Your task to perform on an android device: install app "Mercado Libre" Image 0: 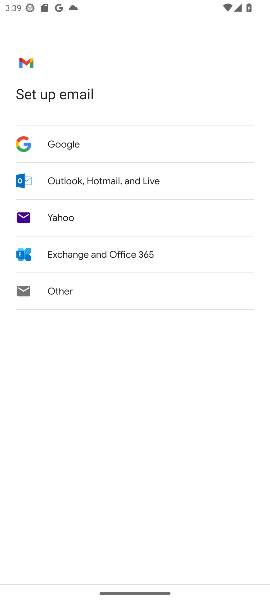
Step 0: press home button
Your task to perform on an android device: install app "Mercado Libre" Image 1: 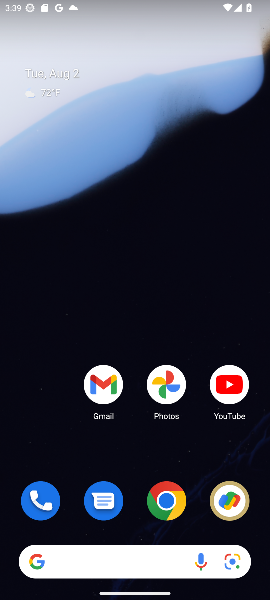
Step 1: drag from (132, 469) to (108, 35)
Your task to perform on an android device: install app "Mercado Libre" Image 2: 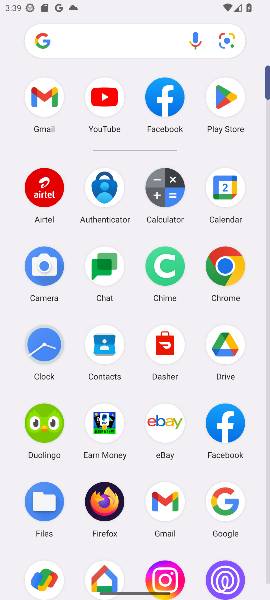
Step 2: click (228, 100)
Your task to perform on an android device: install app "Mercado Libre" Image 3: 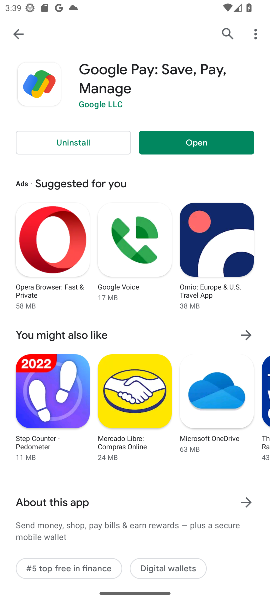
Step 3: click (223, 30)
Your task to perform on an android device: install app "Mercado Libre" Image 4: 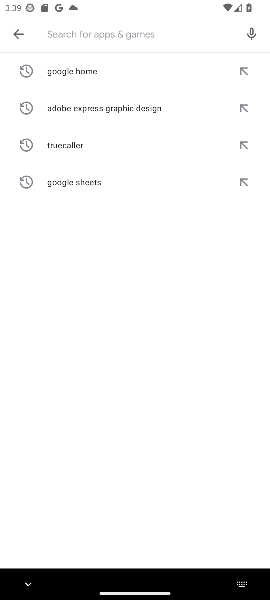
Step 4: type "Mercado Libre"
Your task to perform on an android device: install app "Mercado Libre" Image 5: 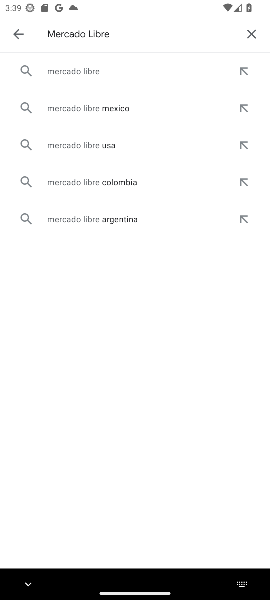
Step 5: click (66, 69)
Your task to perform on an android device: install app "Mercado Libre" Image 6: 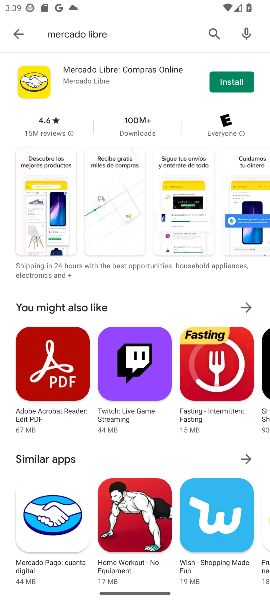
Step 6: click (224, 82)
Your task to perform on an android device: install app "Mercado Libre" Image 7: 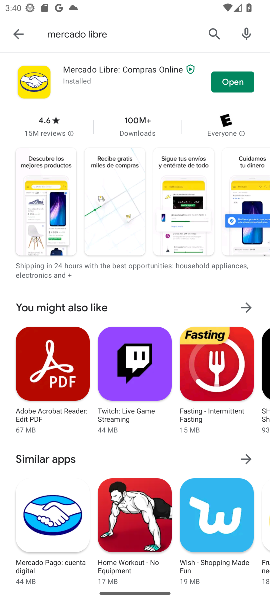
Step 7: task complete